Your task to perform on an android device: Clear the cart on walmart.com. Add "energizer triple a" to the cart on walmart.com Image 0: 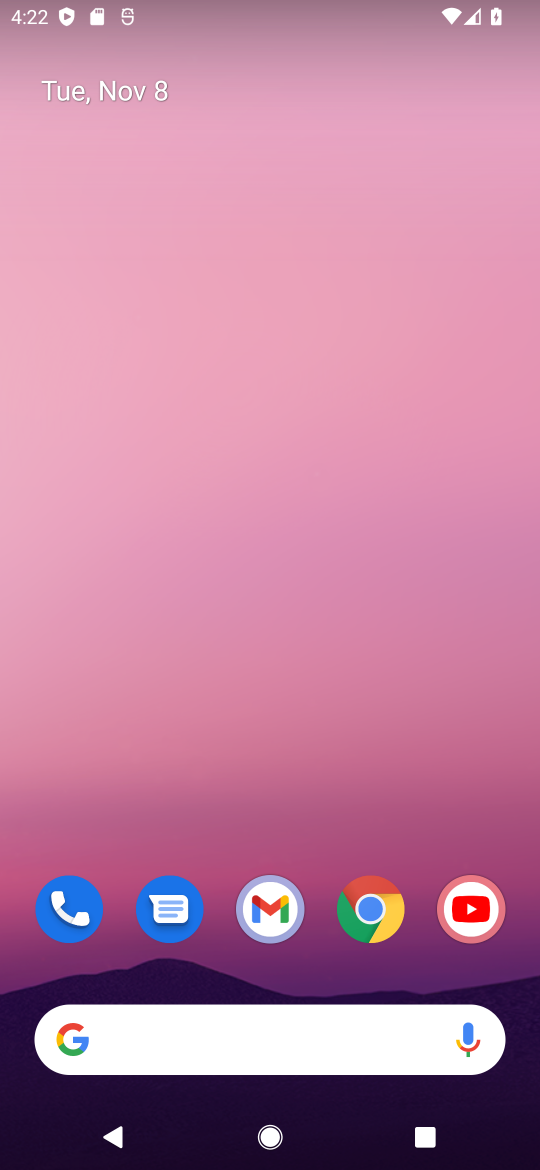
Step 0: click (371, 905)
Your task to perform on an android device: Clear the cart on walmart.com. Add "energizer triple a" to the cart on walmart.com Image 1: 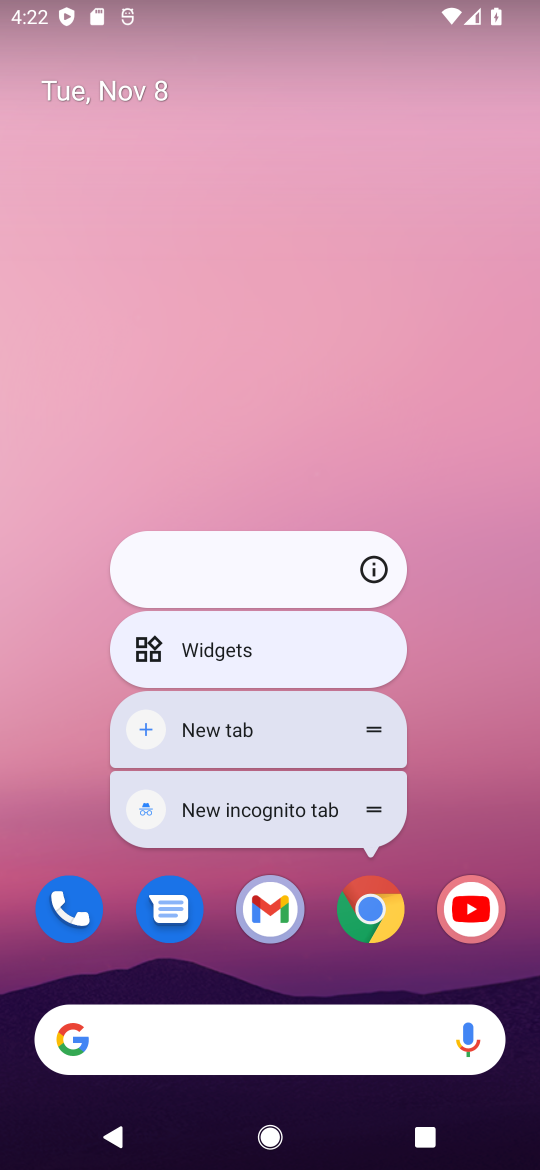
Step 1: click (375, 916)
Your task to perform on an android device: Clear the cart on walmart.com. Add "energizer triple a" to the cart on walmart.com Image 2: 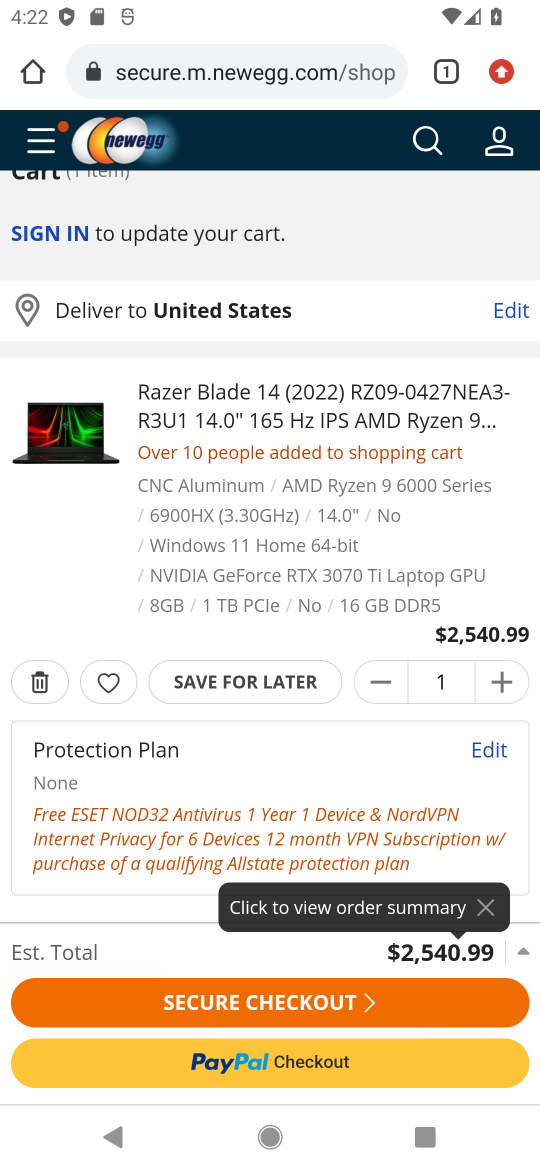
Step 2: click (294, 70)
Your task to perform on an android device: Clear the cart on walmart.com. Add "energizer triple a" to the cart on walmart.com Image 3: 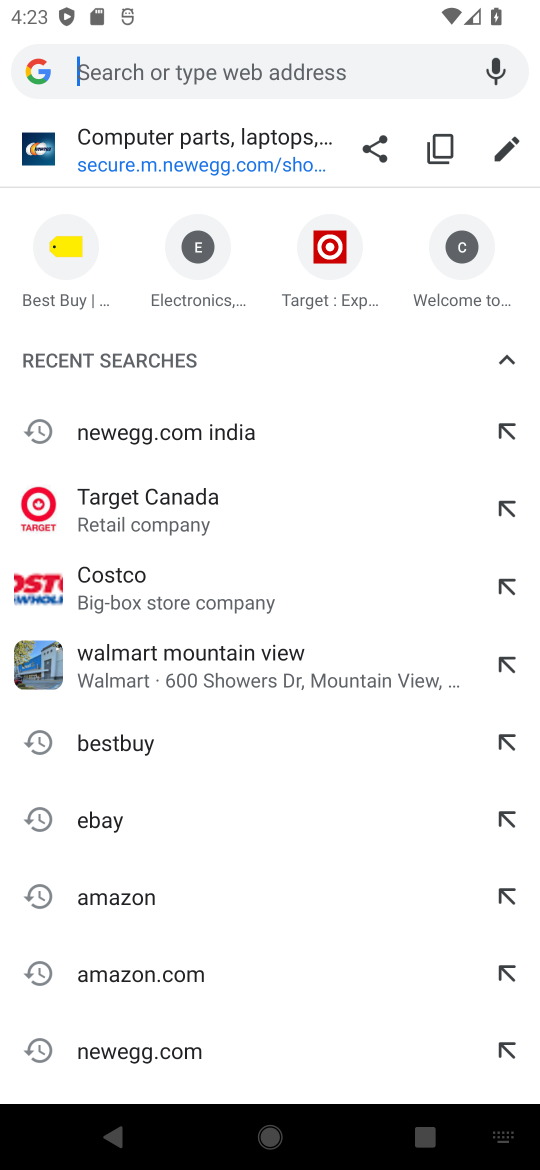
Step 3: type " walmart.com"
Your task to perform on an android device: Clear the cart on walmart.com. Add "energizer triple a" to the cart on walmart.com Image 4: 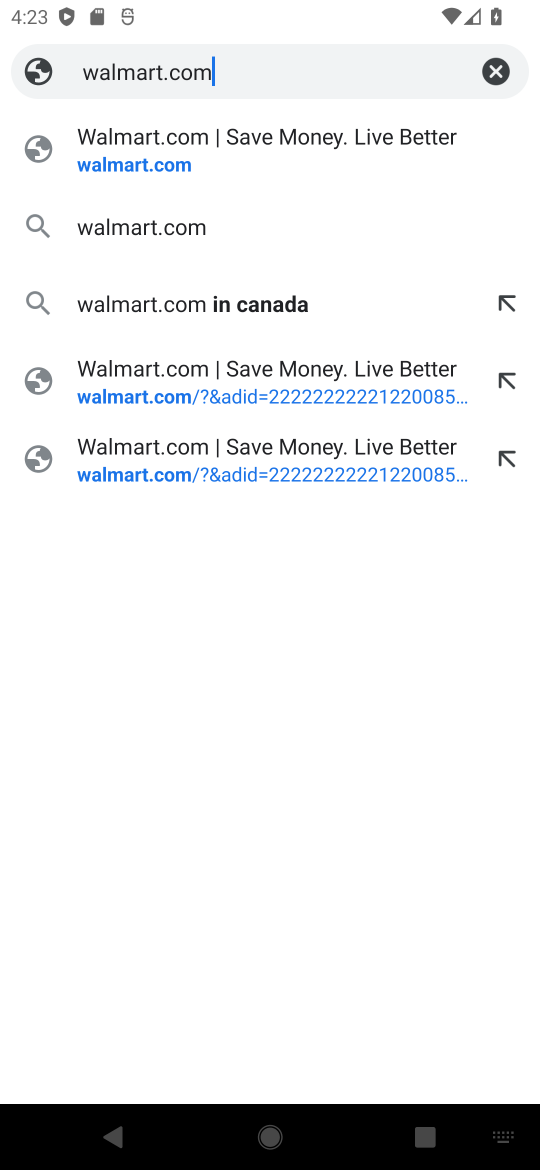
Step 4: click (148, 143)
Your task to perform on an android device: Clear the cart on walmart.com. Add "energizer triple a" to the cart on walmart.com Image 5: 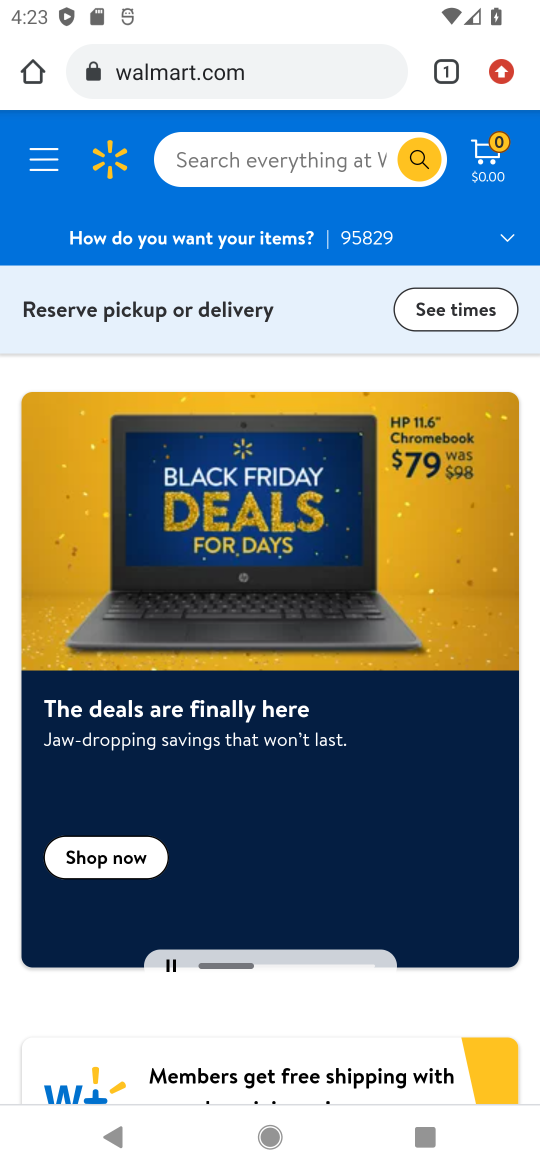
Step 5: click (210, 150)
Your task to perform on an android device: Clear the cart on walmart.com. Add "energizer triple a" to the cart on walmart.com Image 6: 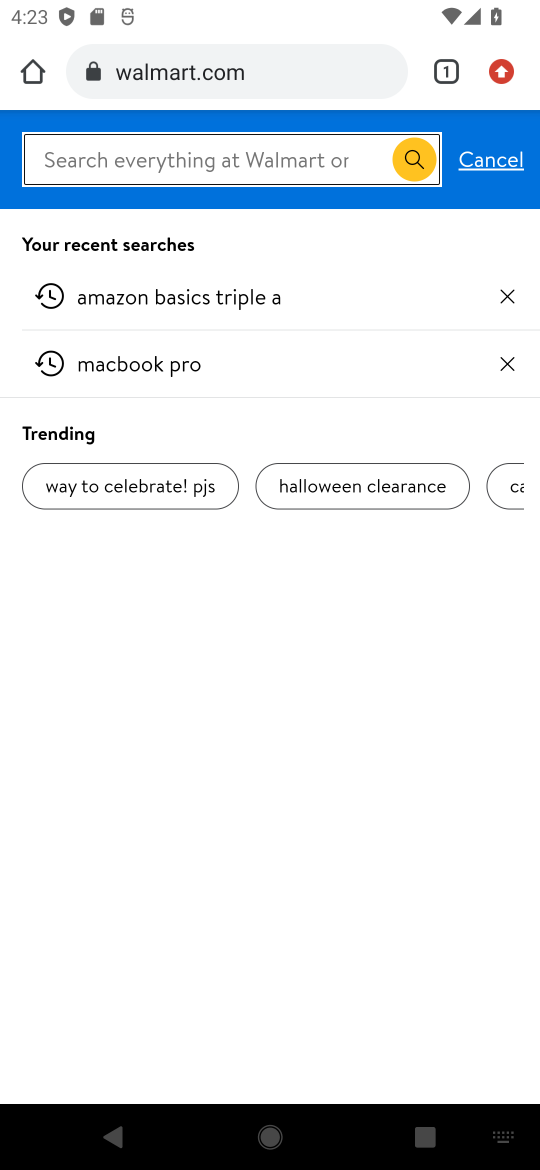
Step 6: type "energizer triple a"
Your task to perform on an android device: Clear the cart on walmart.com. Add "energizer triple a" to the cart on walmart.com Image 7: 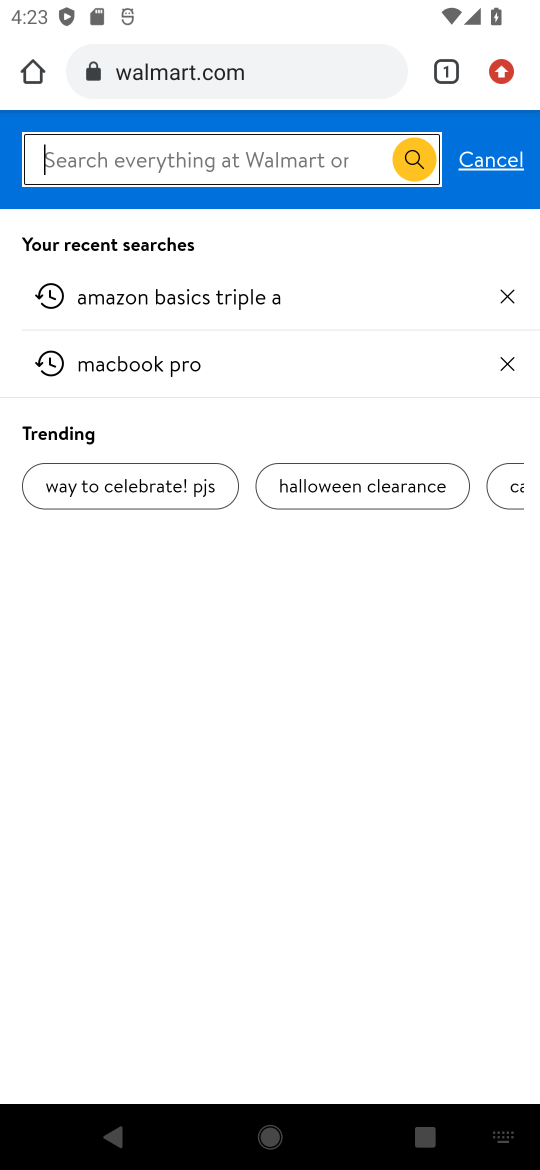
Step 7: press enter
Your task to perform on an android device: Clear the cart on walmart.com. Add "energizer triple a" to the cart on walmart.com Image 8: 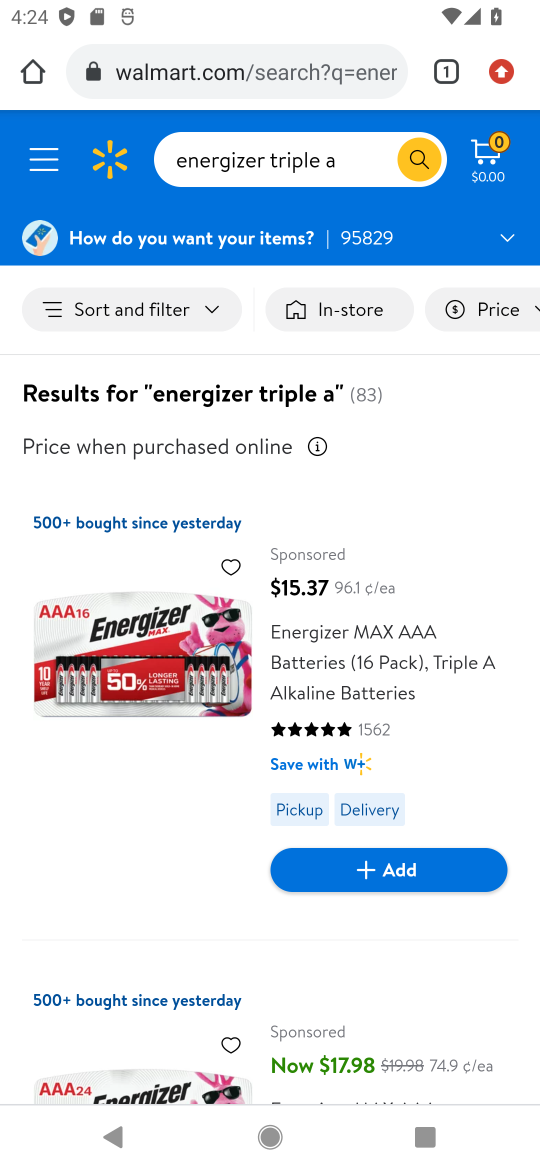
Step 8: click (406, 873)
Your task to perform on an android device: Clear the cart on walmart.com. Add "energizer triple a" to the cart on walmart.com Image 9: 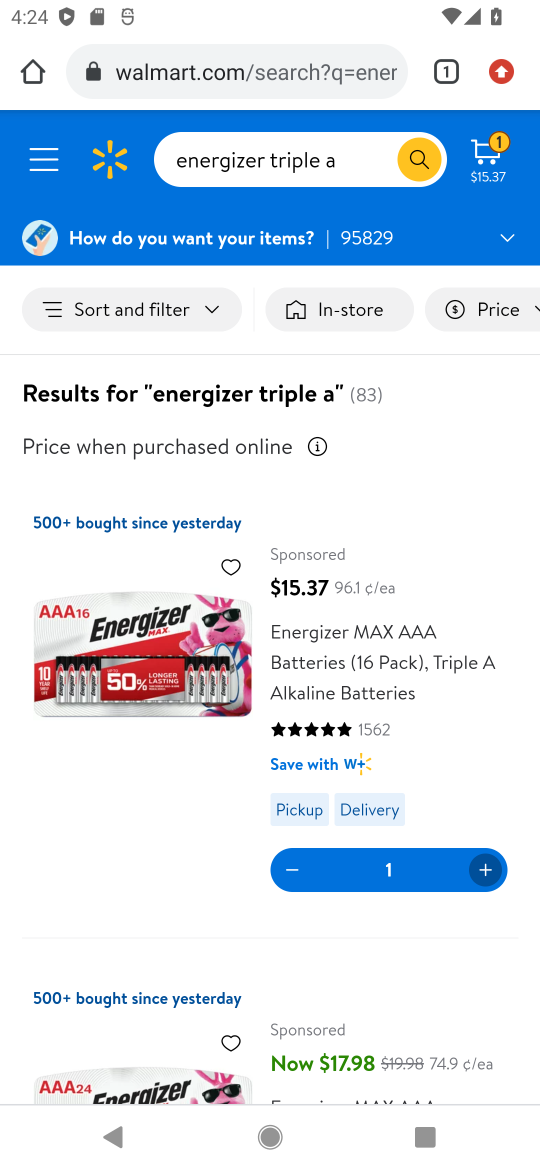
Step 9: click (498, 143)
Your task to perform on an android device: Clear the cart on walmart.com. Add "energizer triple a" to the cart on walmart.com Image 10: 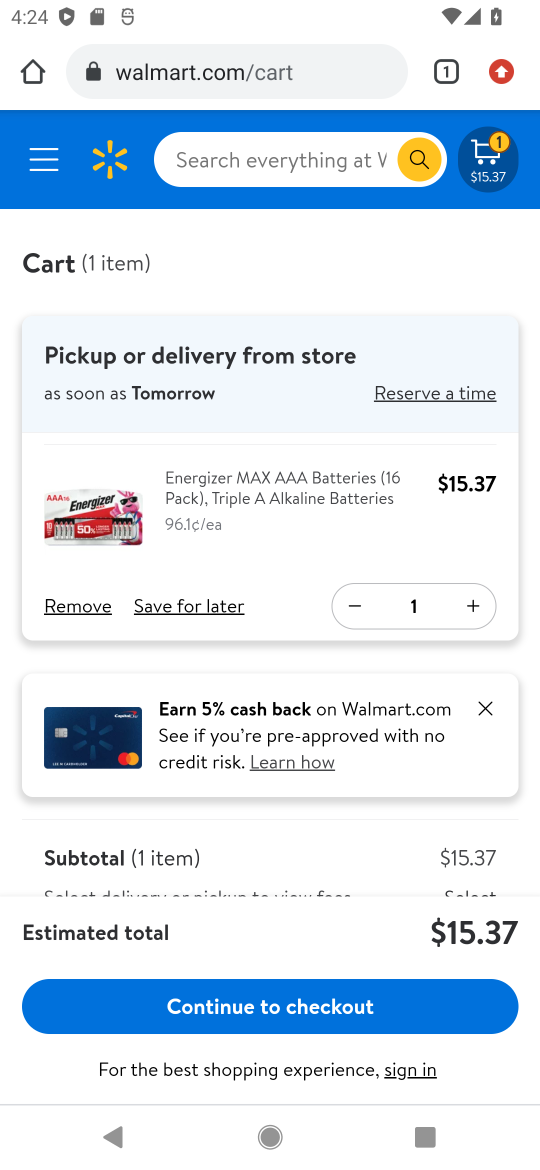
Step 10: task complete